Your task to perform on an android device: Open wifi settings Image 0: 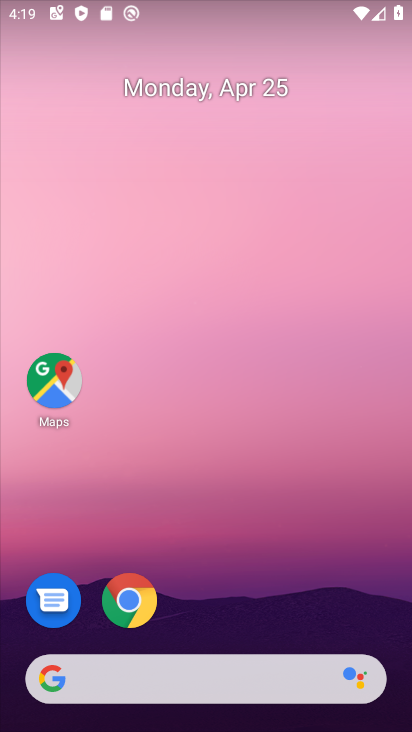
Step 0: drag from (315, 542) to (323, 36)
Your task to perform on an android device: Open wifi settings Image 1: 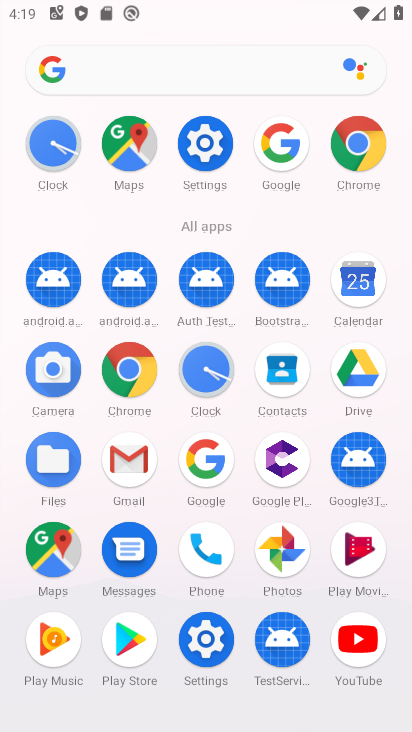
Step 1: drag from (2, 572) to (9, 297)
Your task to perform on an android device: Open wifi settings Image 2: 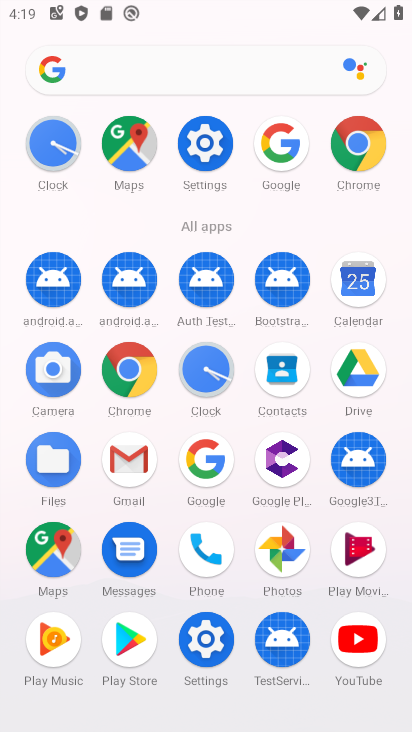
Step 2: click (210, 634)
Your task to perform on an android device: Open wifi settings Image 3: 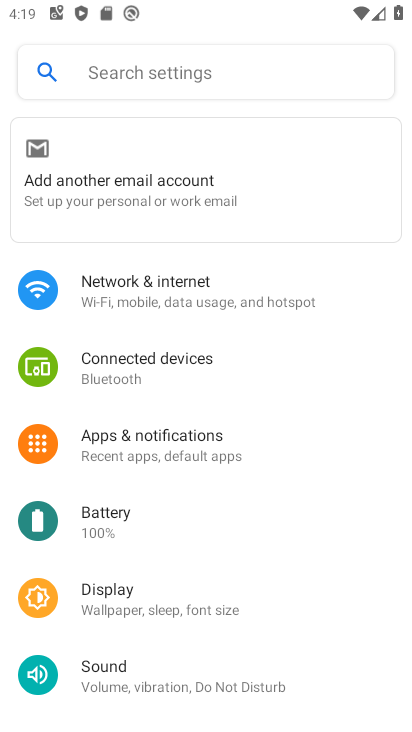
Step 3: click (196, 294)
Your task to perform on an android device: Open wifi settings Image 4: 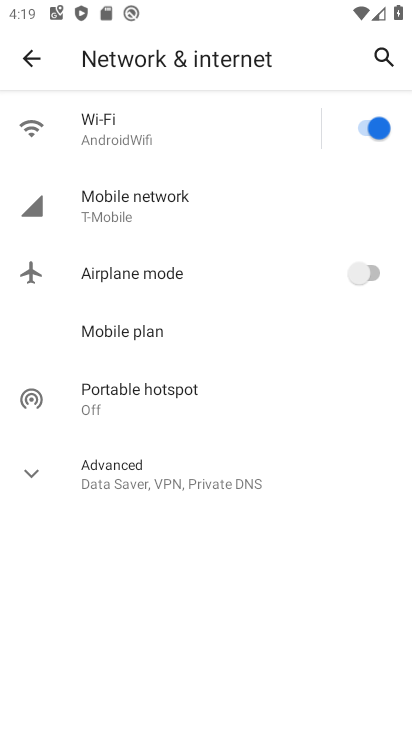
Step 4: click (163, 122)
Your task to perform on an android device: Open wifi settings Image 5: 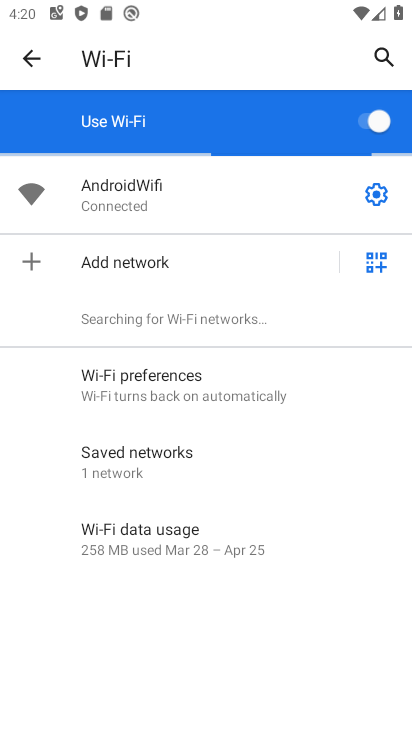
Step 5: task complete